Your task to perform on an android device: turn off translation in the chrome app Image 0: 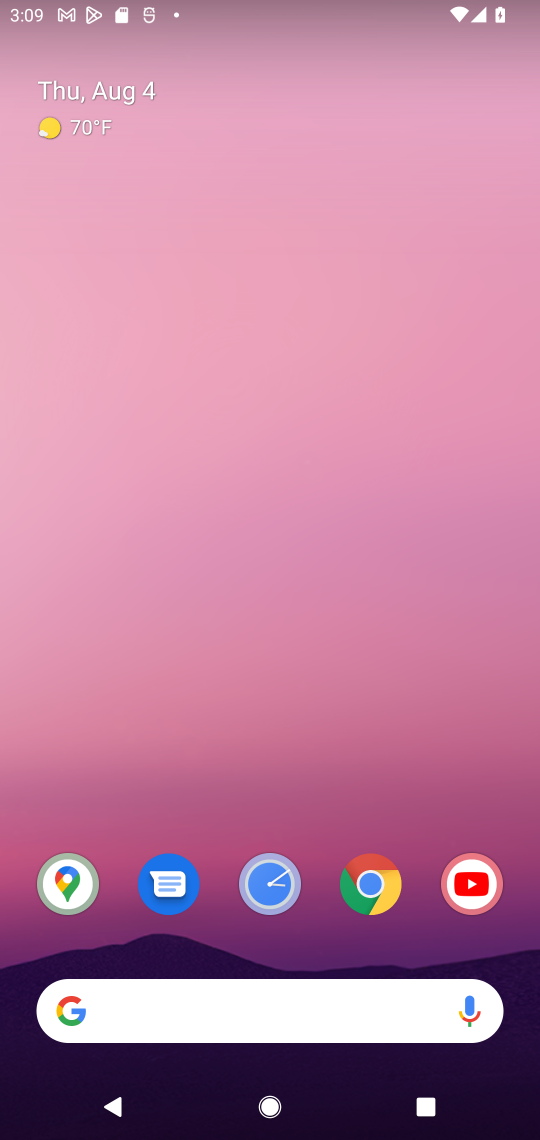
Step 0: click (385, 884)
Your task to perform on an android device: turn off translation in the chrome app Image 1: 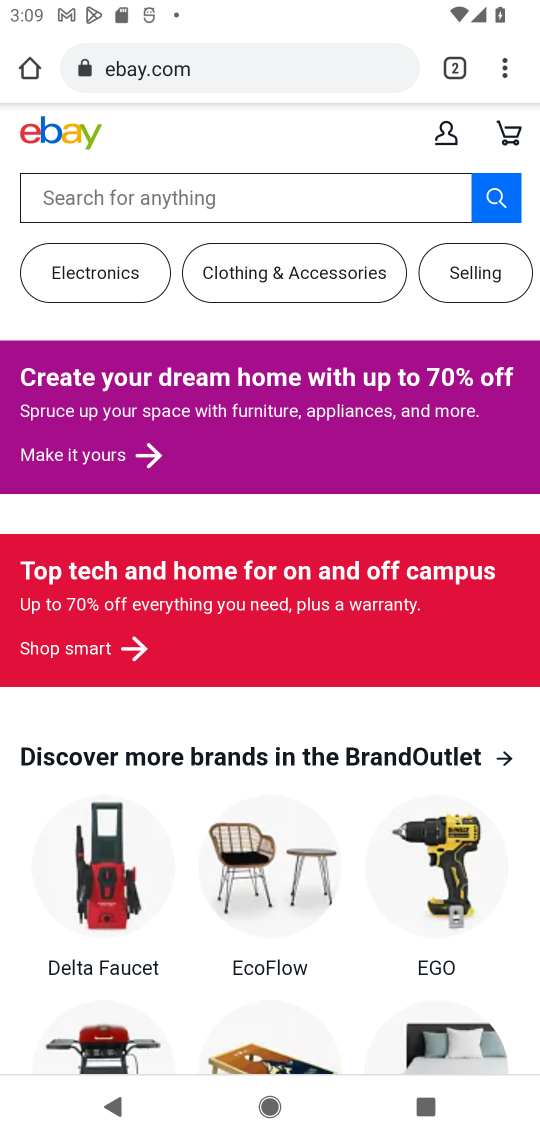
Step 1: click (491, 61)
Your task to perform on an android device: turn off translation in the chrome app Image 2: 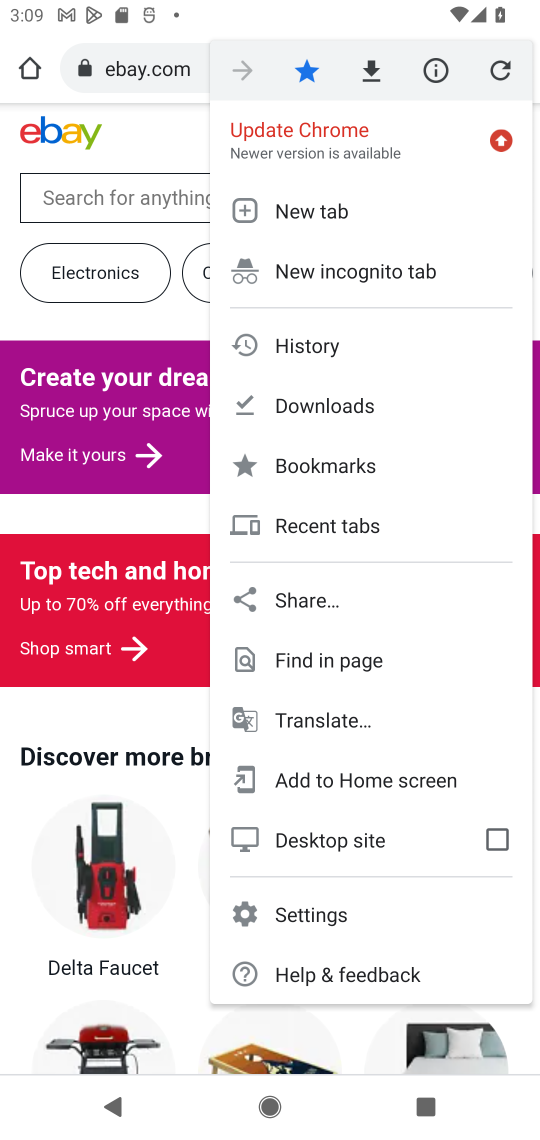
Step 2: click (325, 904)
Your task to perform on an android device: turn off translation in the chrome app Image 3: 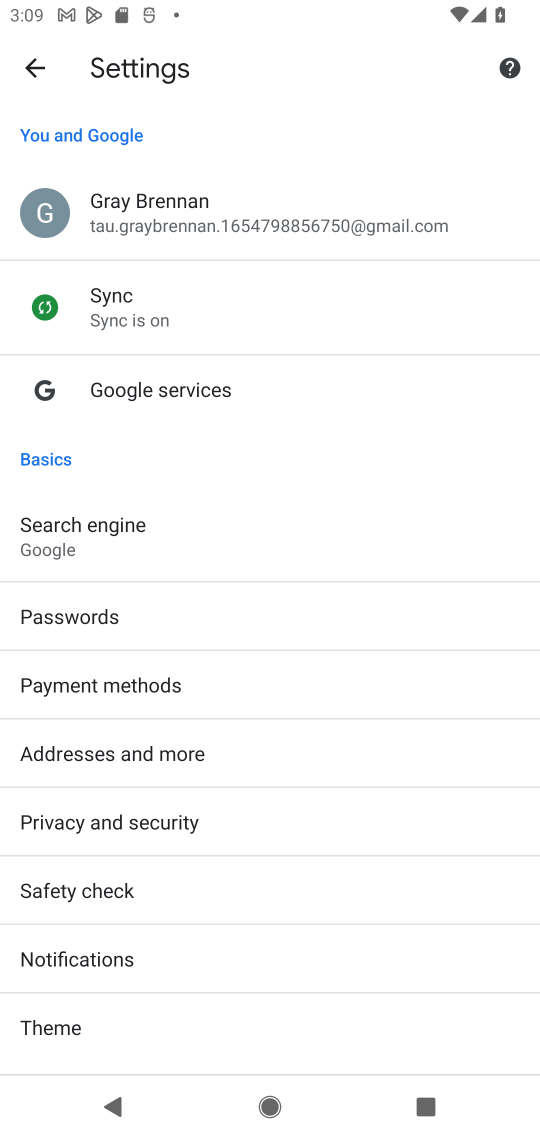
Step 3: drag from (224, 1033) to (164, 459)
Your task to perform on an android device: turn off translation in the chrome app Image 4: 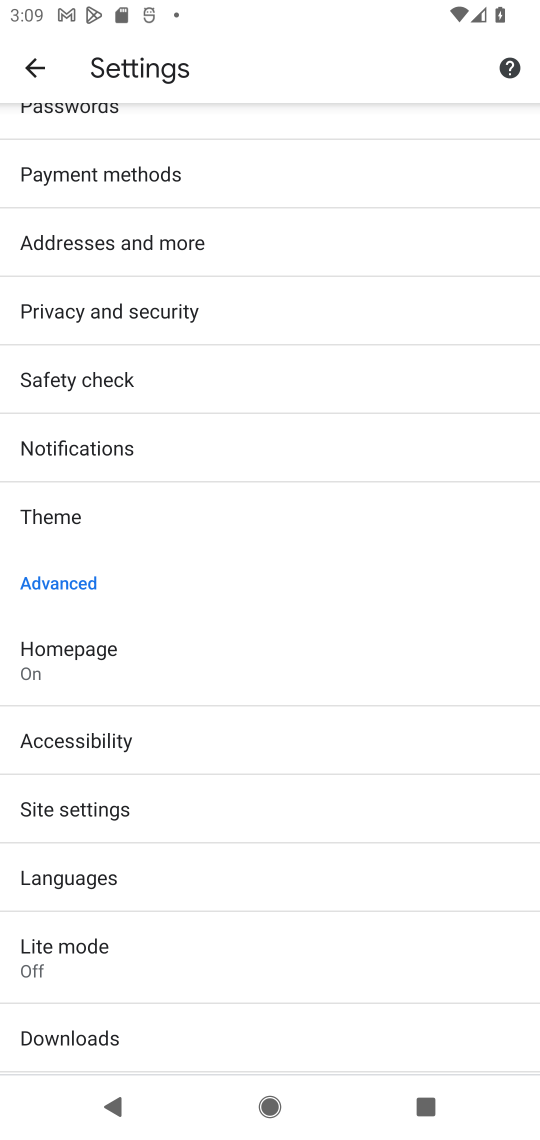
Step 4: click (207, 857)
Your task to perform on an android device: turn off translation in the chrome app Image 5: 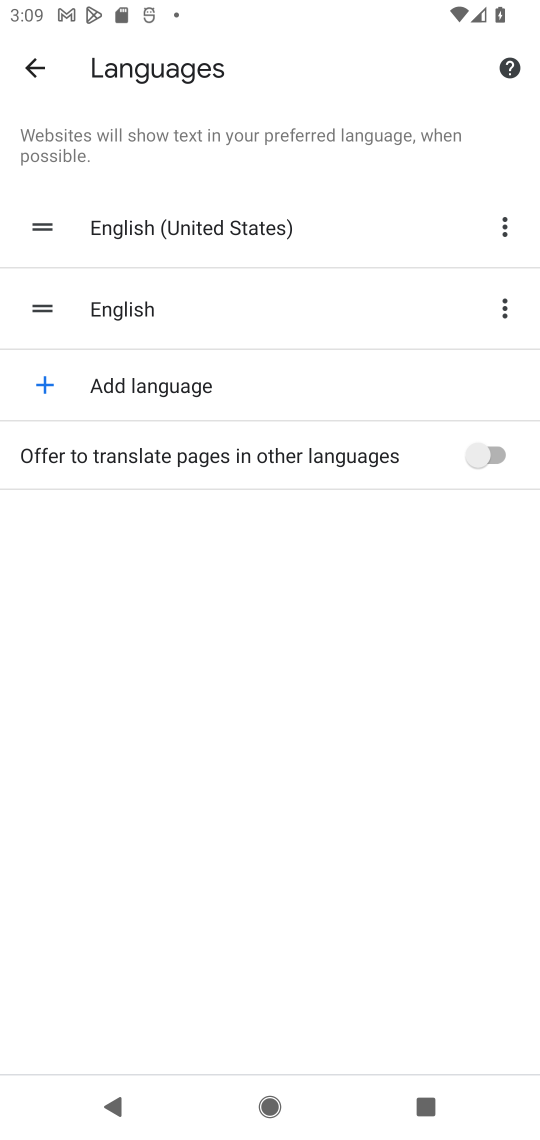
Step 5: click (484, 462)
Your task to perform on an android device: turn off translation in the chrome app Image 6: 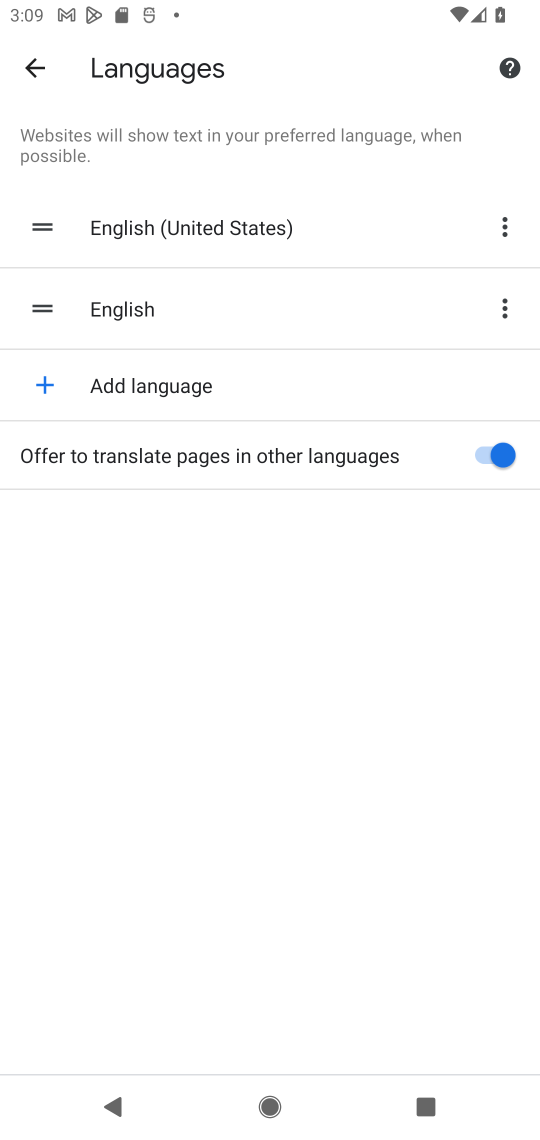
Step 6: task complete